Your task to perform on an android device: Go to network settings Image 0: 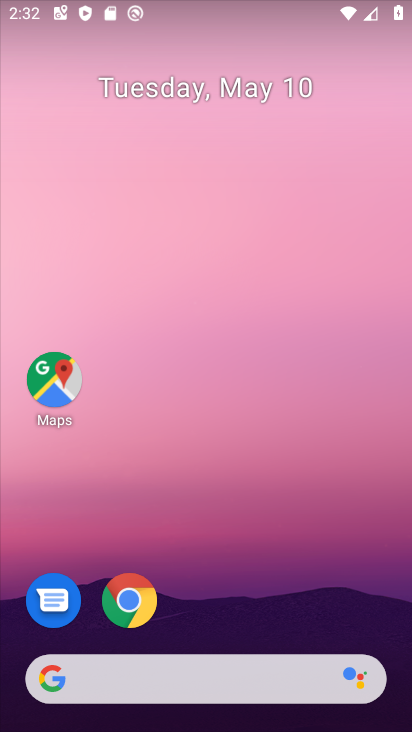
Step 0: drag from (211, 640) to (250, 197)
Your task to perform on an android device: Go to network settings Image 1: 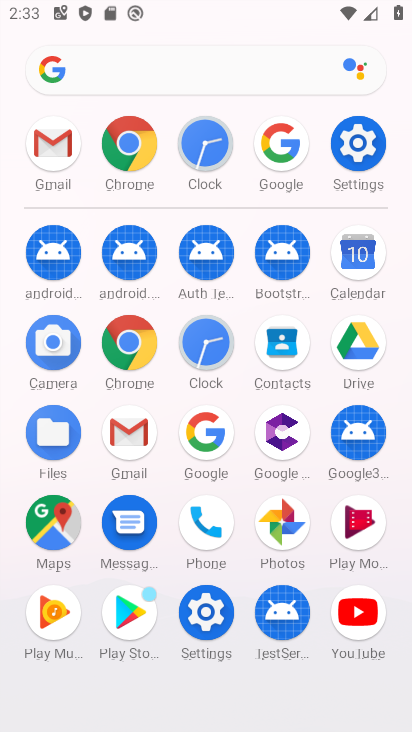
Step 1: click (356, 167)
Your task to perform on an android device: Go to network settings Image 2: 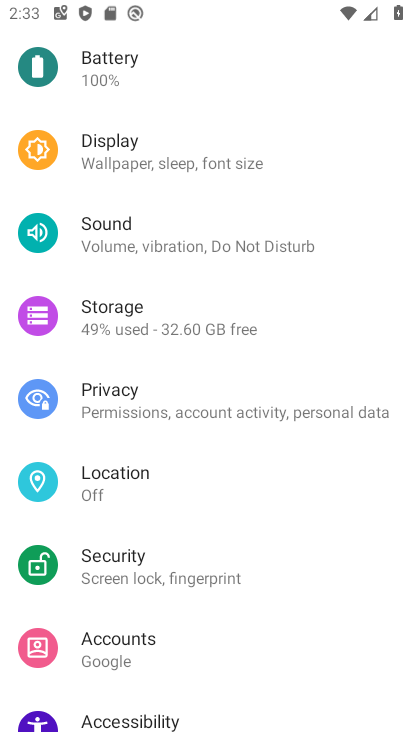
Step 2: drag from (207, 226) to (150, 553)
Your task to perform on an android device: Go to network settings Image 3: 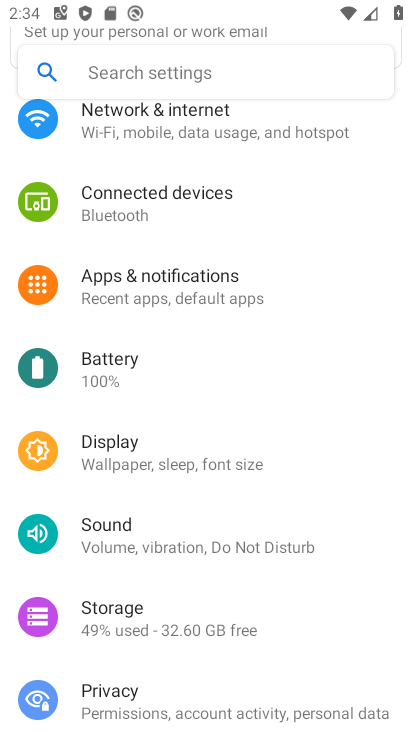
Step 3: drag from (134, 364) to (96, 626)
Your task to perform on an android device: Go to network settings Image 4: 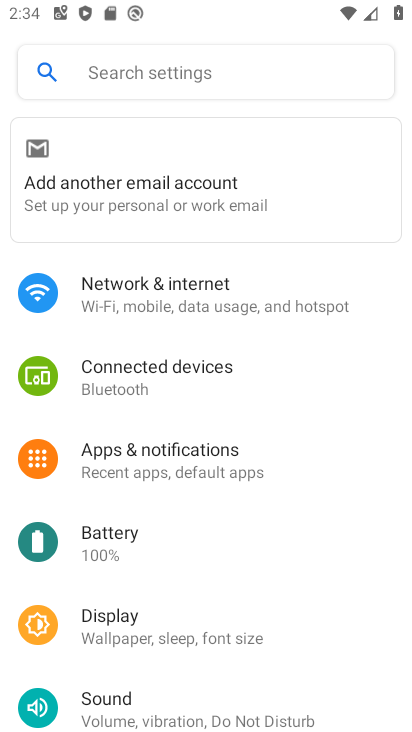
Step 4: click (224, 304)
Your task to perform on an android device: Go to network settings Image 5: 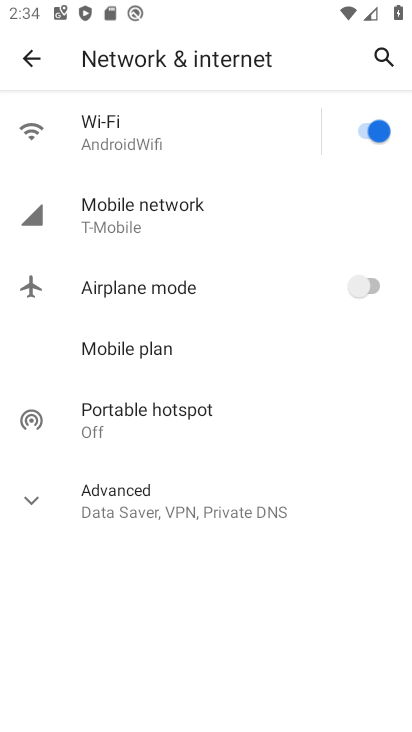
Step 5: click (165, 232)
Your task to perform on an android device: Go to network settings Image 6: 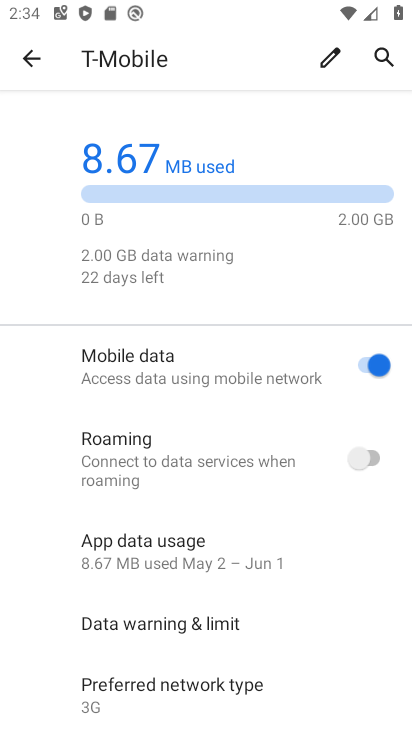
Step 6: task complete